Your task to perform on an android device: toggle priority inbox in the gmail app Image 0: 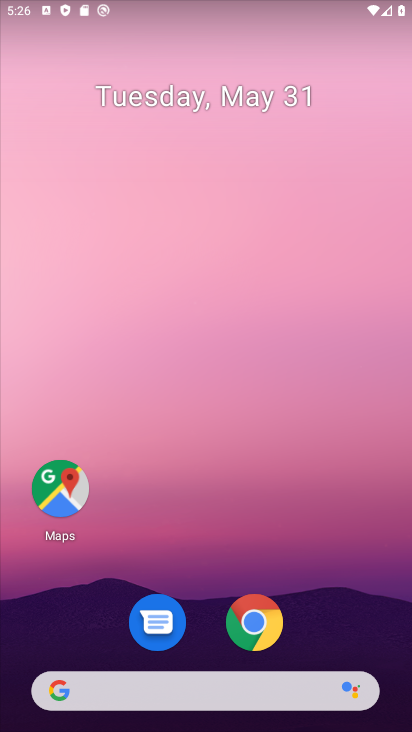
Step 0: drag from (367, 679) to (333, 88)
Your task to perform on an android device: toggle priority inbox in the gmail app Image 1: 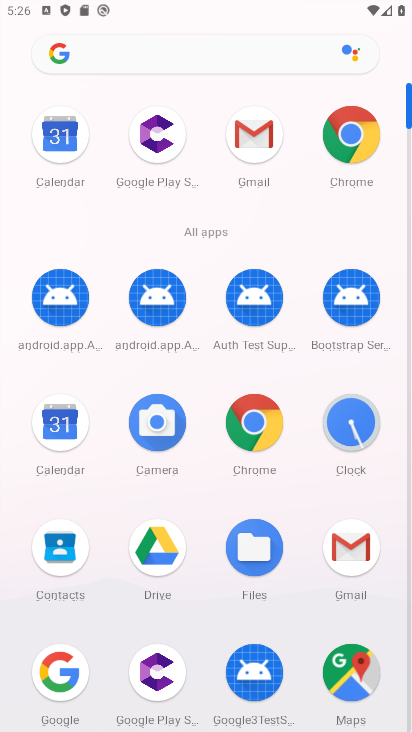
Step 1: click (371, 566)
Your task to perform on an android device: toggle priority inbox in the gmail app Image 2: 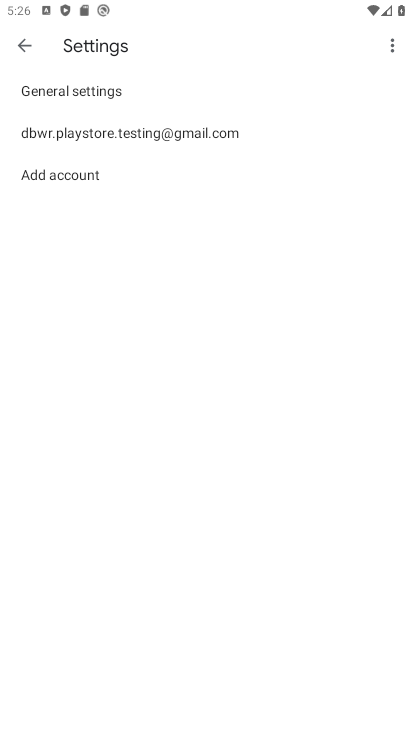
Step 2: click (121, 132)
Your task to perform on an android device: toggle priority inbox in the gmail app Image 3: 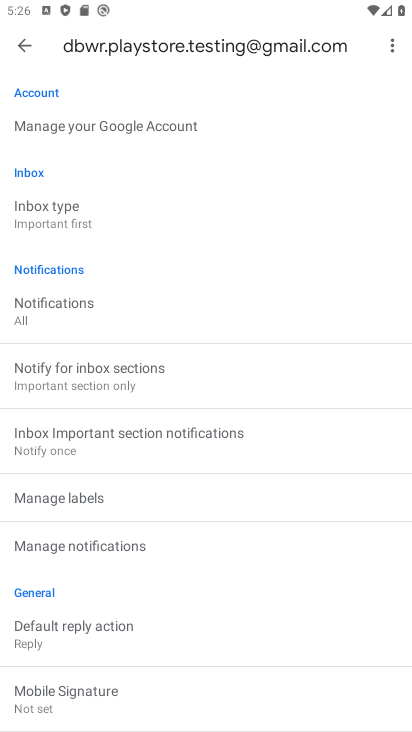
Step 3: click (75, 223)
Your task to perform on an android device: toggle priority inbox in the gmail app Image 4: 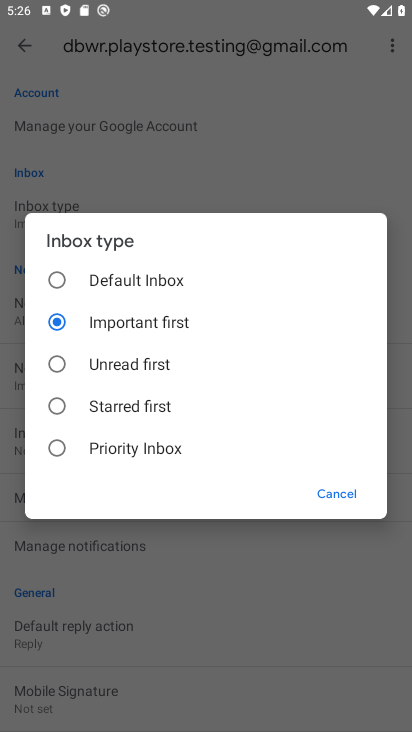
Step 4: click (95, 455)
Your task to perform on an android device: toggle priority inbox in the gmail app Image 5: 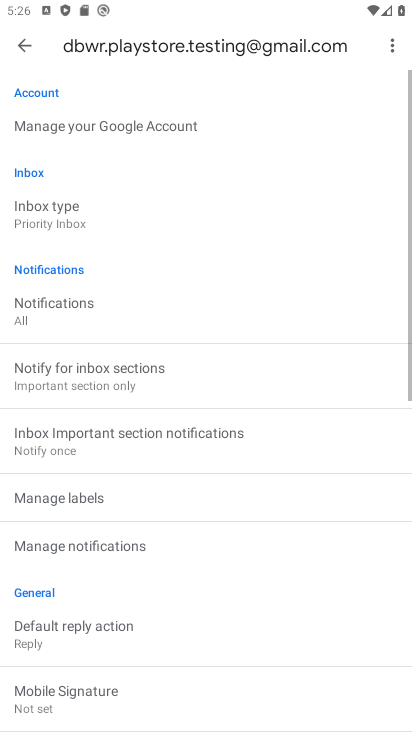
Step 5: task complete